Your task to perform on an android device: Set the phone to "Do not disturb". Image 0: 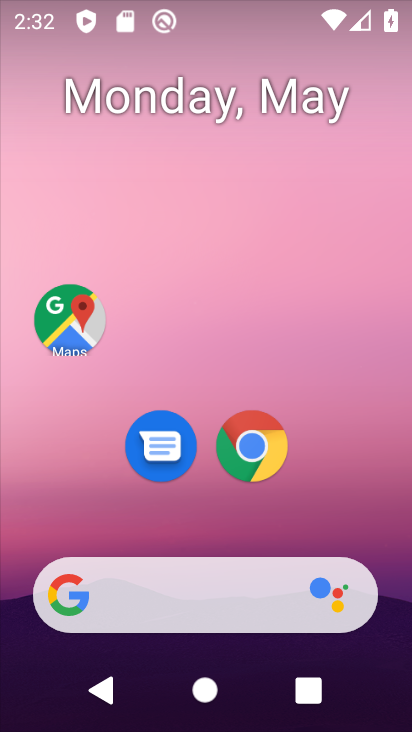
Step 0: drag from (210, 4) to (176, 429)
Your task to perform on an android device: Set the phone to "Do not disturb". Image 1: 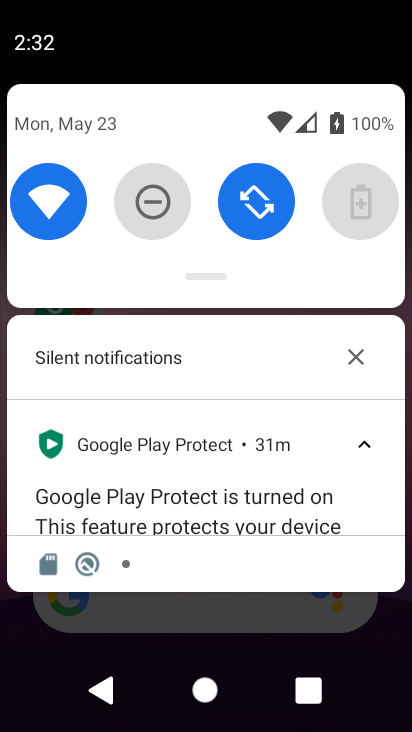
Step 1: click (131, 209)
Your task to perform on an android device: Set the phone to "Do not disturb". Image 2: 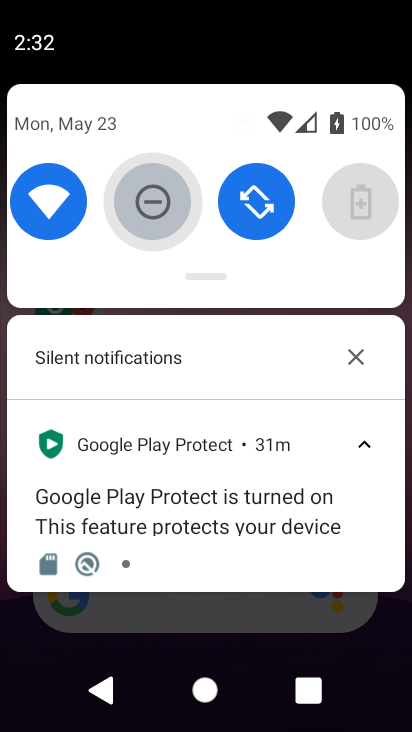
Step 2: task complete